Your task to perform on an android device: turn off translation in the chrome app Image 0: 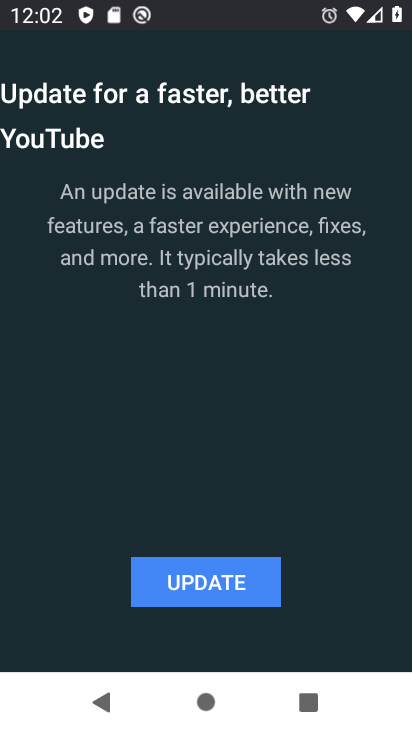
Step 0: press home button
Your task to perform on an android device: turn off translation in the chrome app Image 1: 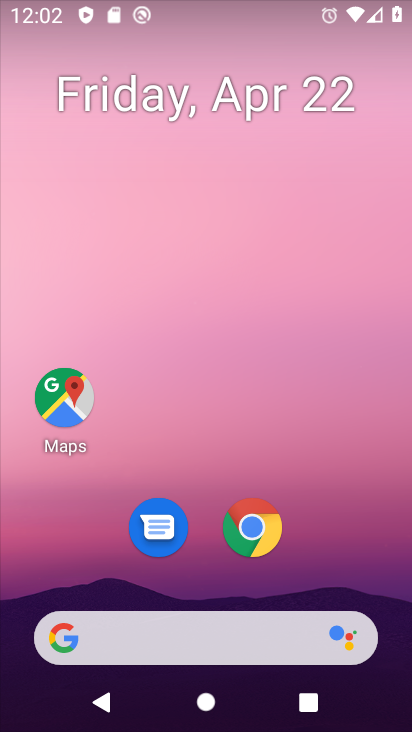
Step 1: click (239, 536)
Your task to perform on an android device: turn off translation in the chrome app Image 2: 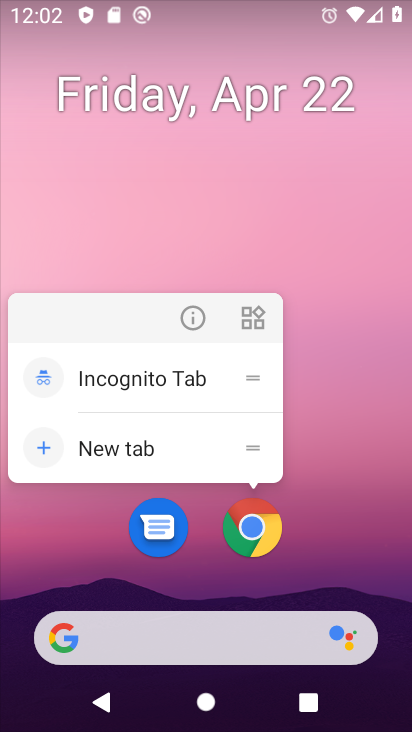
Step 2: click (253, 524)
Your task to perform on an android device: turn off translation in the chrome app Image 3: 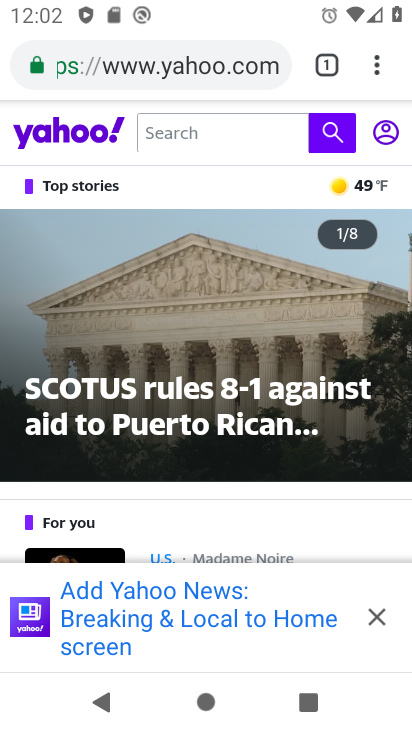
Step 3: drag from (382, 68) to (205, 563)
Your task to perform on an android device: turn off translation in the chrome app Image 4: 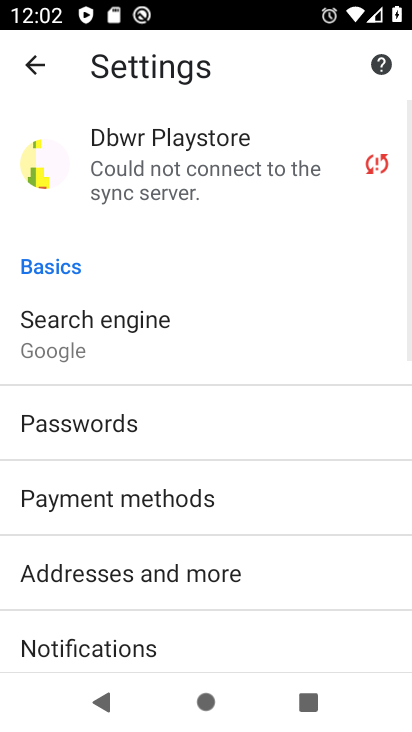
Step 4: drag from (234, 548) to (260, 308)
Your task to perform on an android device: turn off translation in the chrome app Image 5: 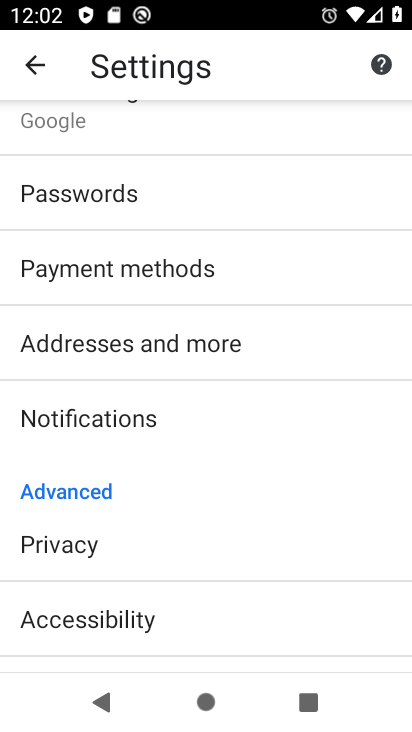
Step 5: drag from (173, 558) to (243, 295)
Your task to perform on an android device: turn off translation in the chrome app Image 6: 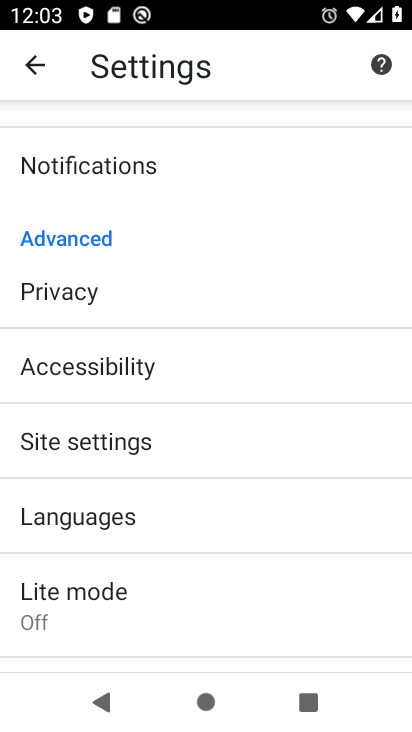
Step 6: click (139, 518)
Your task to perform on an android device: turn off translation in the chrome app Image 7: 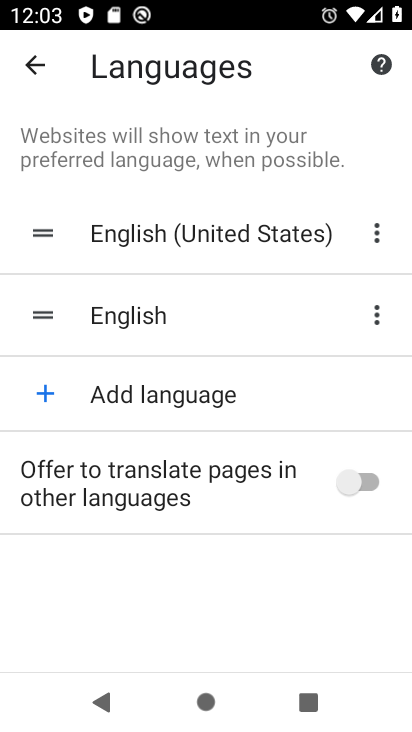
Step 7: task complete